Your task to perform on an android device: Show me popular videos on Youtube Image 0: 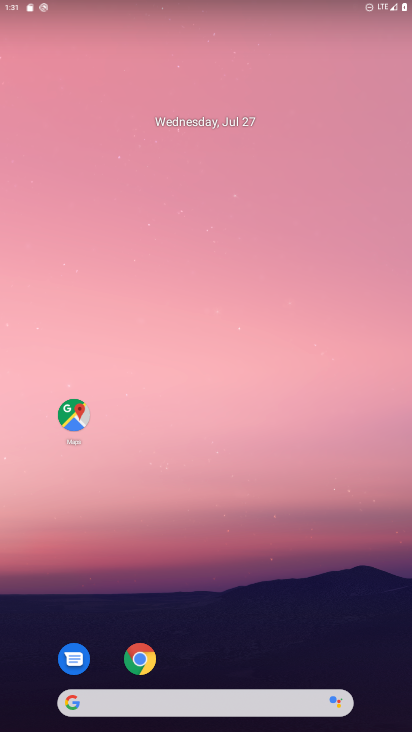
Step 0: drag from (218, 669) to (244, 198)
Your task to perform on an android device: Show me popular videos on Youtube Image 1: 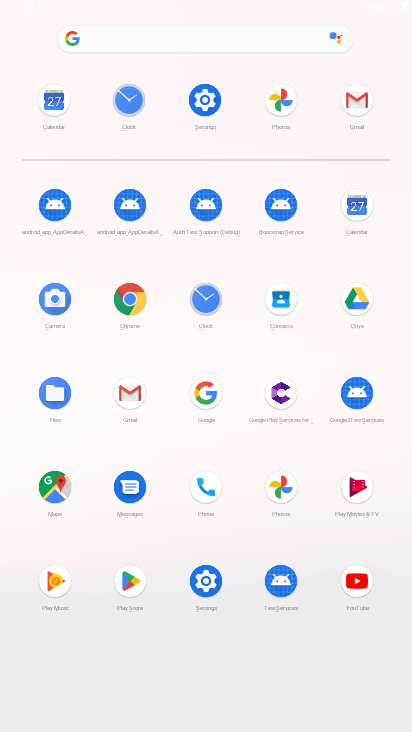
Step 1: click (359, 573)
Your task to perform on an android device: Show me popular videos on Youtube Image 2: 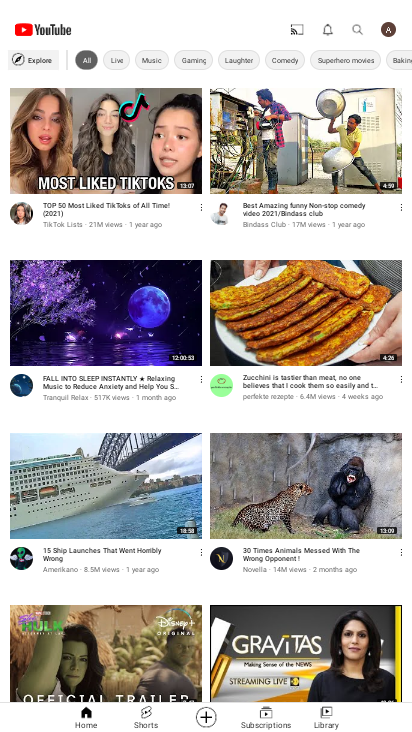
Step 2: drag from (361, 56) to (48, 56)
Your task to perform on an android device: Show me popular videos on Youtube Image 3: 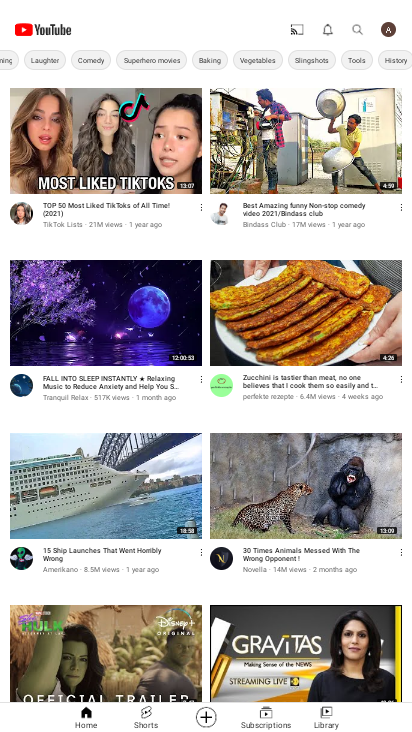
Step 3: drag from (194, 417) to (196, 222)
Your task to perform on an android device: Show me popular videos on Youtube Image 4: 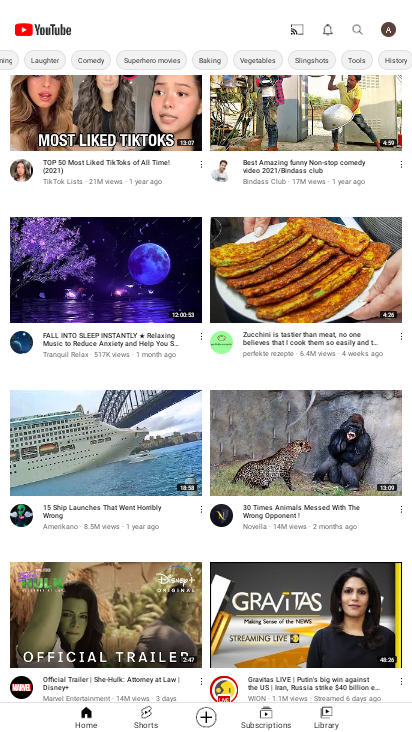
Step 4: drag from (213, 592) to (209, 319)
Your task to perform on an android device: Show me popular videos on Youtube Image 5: 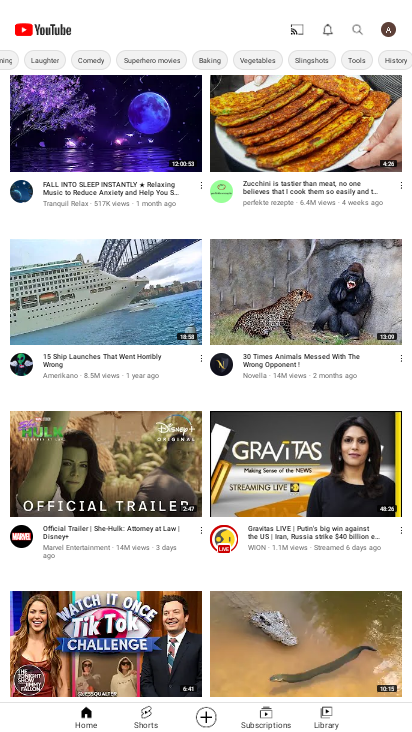
Step 5: drag from (181, 614) to (193, 166)
Your task to perform on an android device: Show me popular videos on Youtube Image 6: 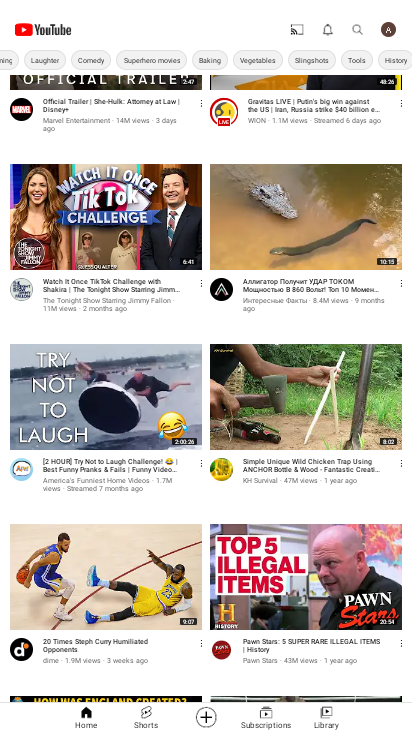
Step 6: drag from (157, 632) to (212, 270)
Your task to perform on an android device: Show me popular videos on Youtube Image 7: 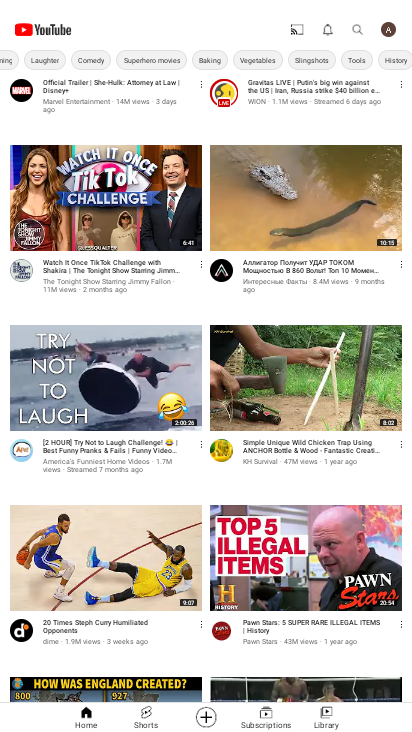
Step 7: drag from (76, 650) to (103, 258)
Your task to perform on an android device: Show me popular videos on Youtube Image 8: 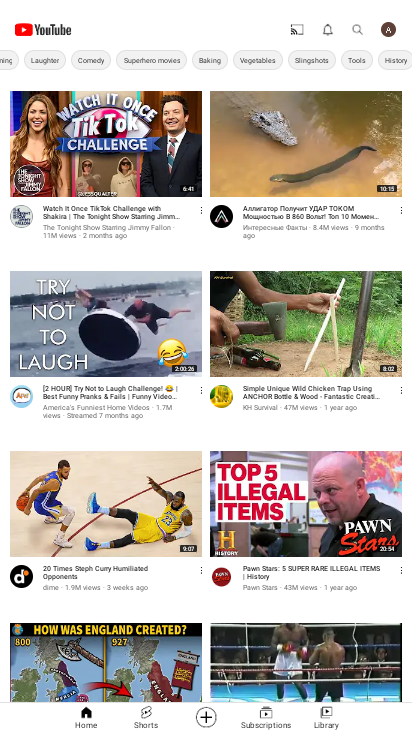
Step 8: drag from (111, 611) to (111, 157)
Your task to perform on an android device: Show me popular videos on Youtube Image 9: 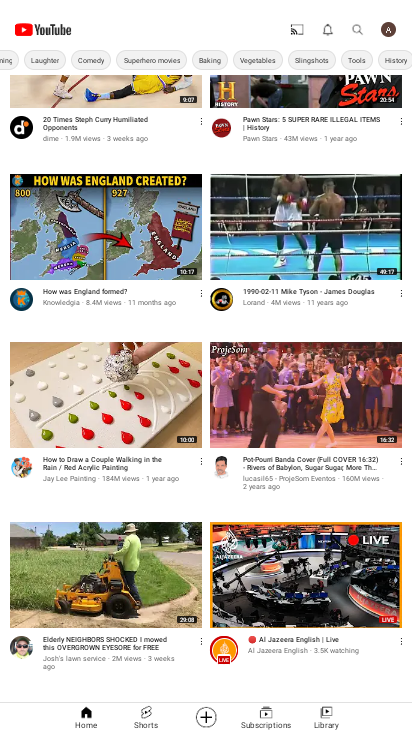
Step 9: drag from (47, 55) to (292, 80)
Your task to perform on an android device: Show me popular videos on Youtube Image 10: 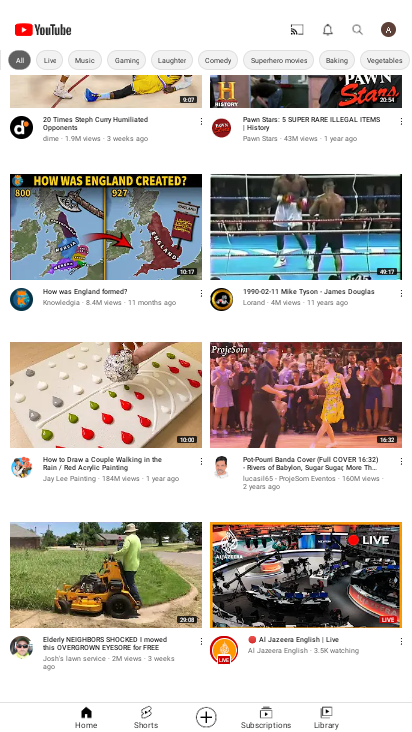
Step 10: drag from (43, 57) to (344, 51)
Your task to perform on an android device: Show me popular videos on Youtube Image 11: 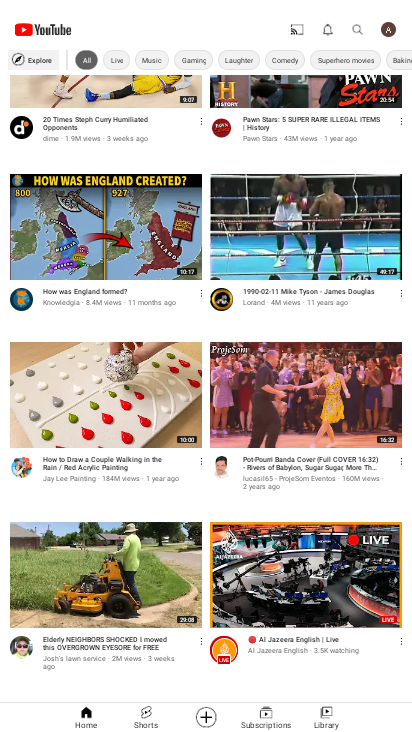
Step 11: click (31, 58)
Your task to perform on an android device: Show me popular videos on Youtube Image 12: 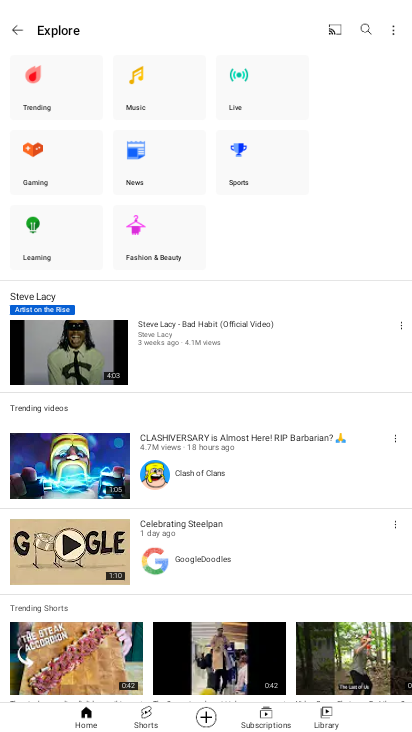
Step 12: click (365, 21)
Your task to perform on an android device: Show me popular videos on Youtube Image 13: 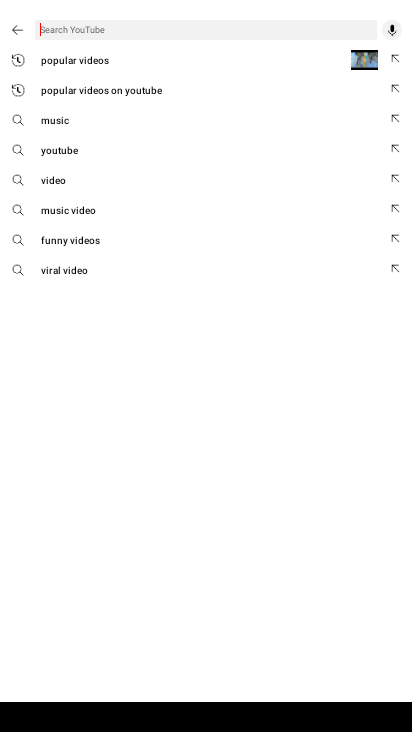
Step 13: click (100, 55)
Your task to perform on an android device: Show me popular videos on Youtube Image 14: 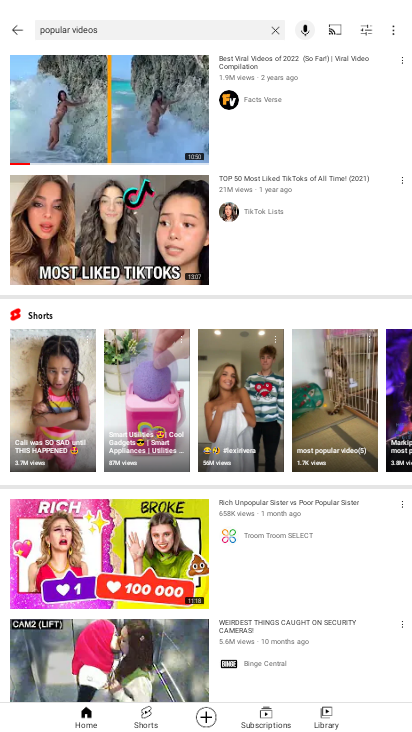
Step 14: task complete